Your task to perform on an android device: allow notifications from all sites in the chrome app Image 0: 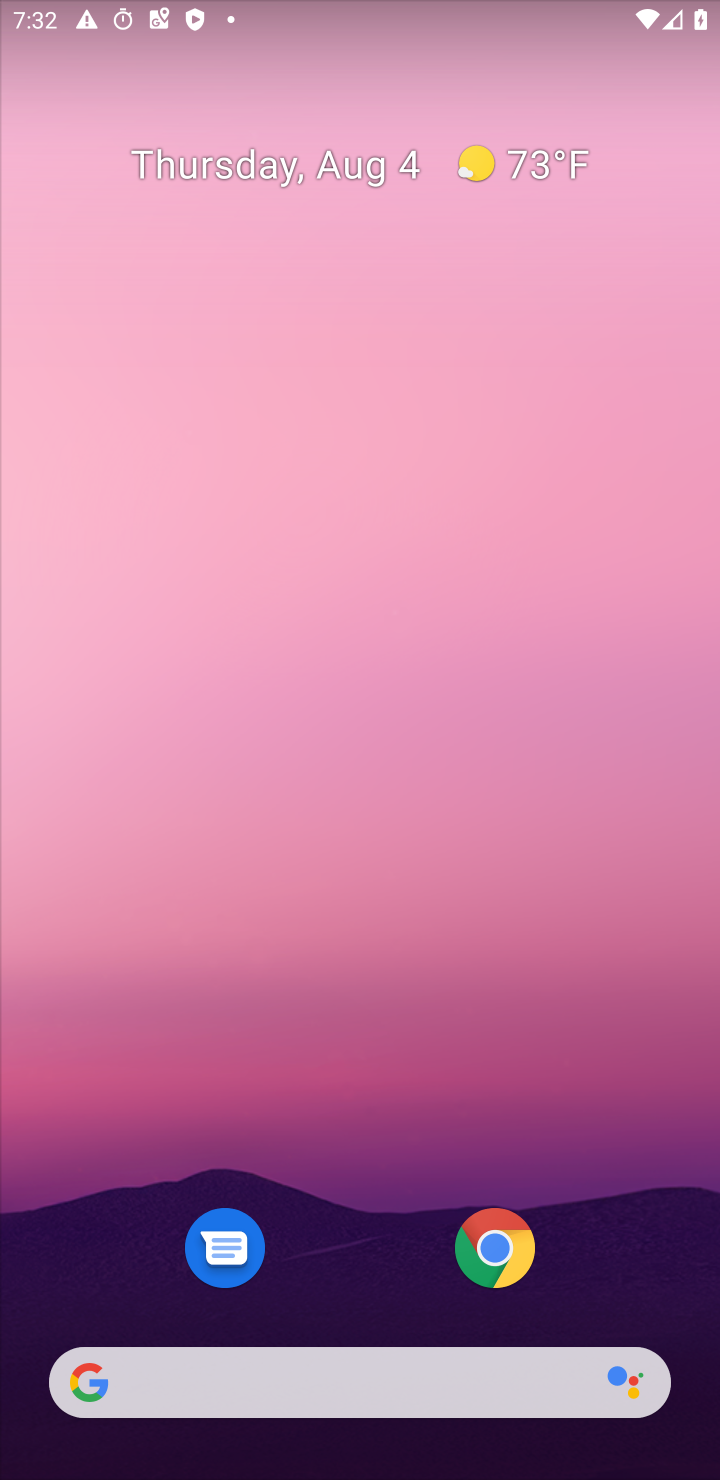
Step 0: press home button
Your task to perform on an android device: allow notifications from all sites in the chrome app Image 1: 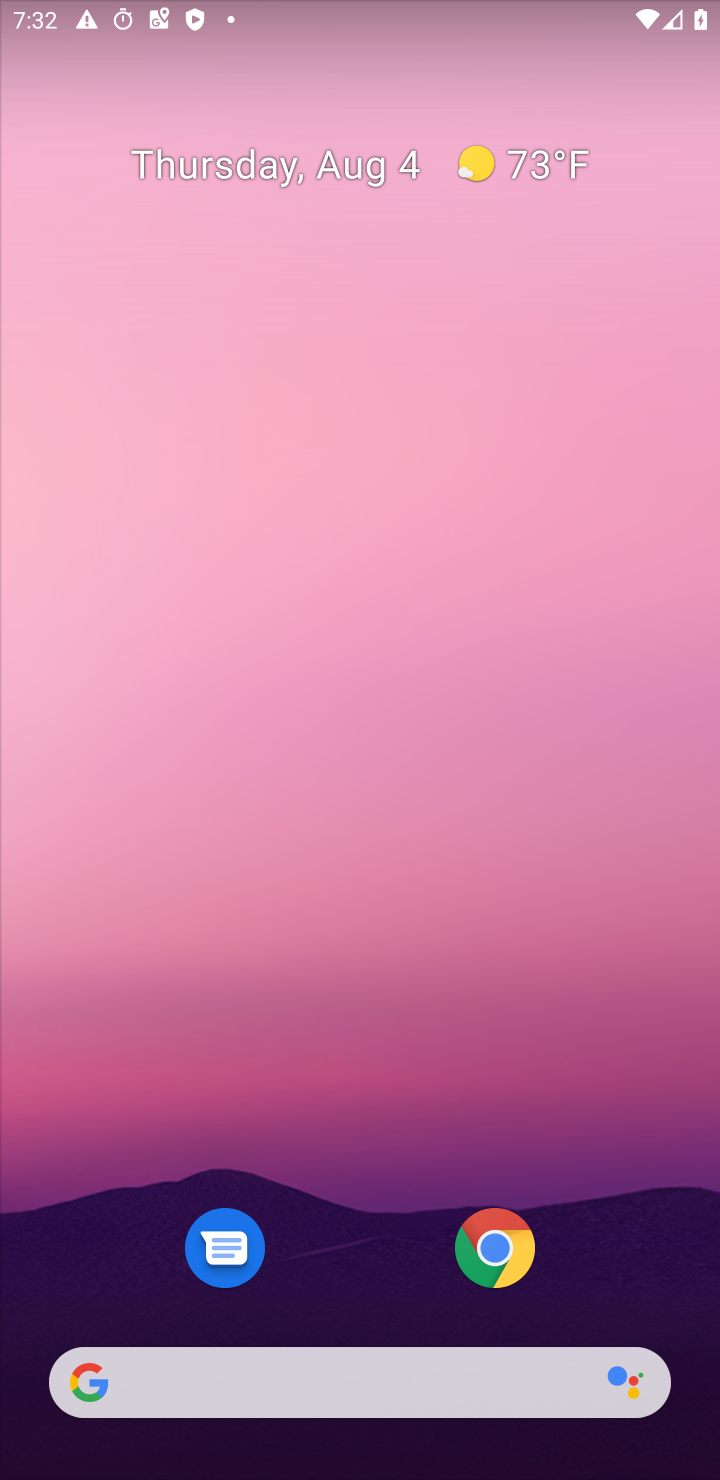
Step 1: click (521, 1249)
Your task to perform on an android device: allow notifications from all sites in the chrome app Image 2: 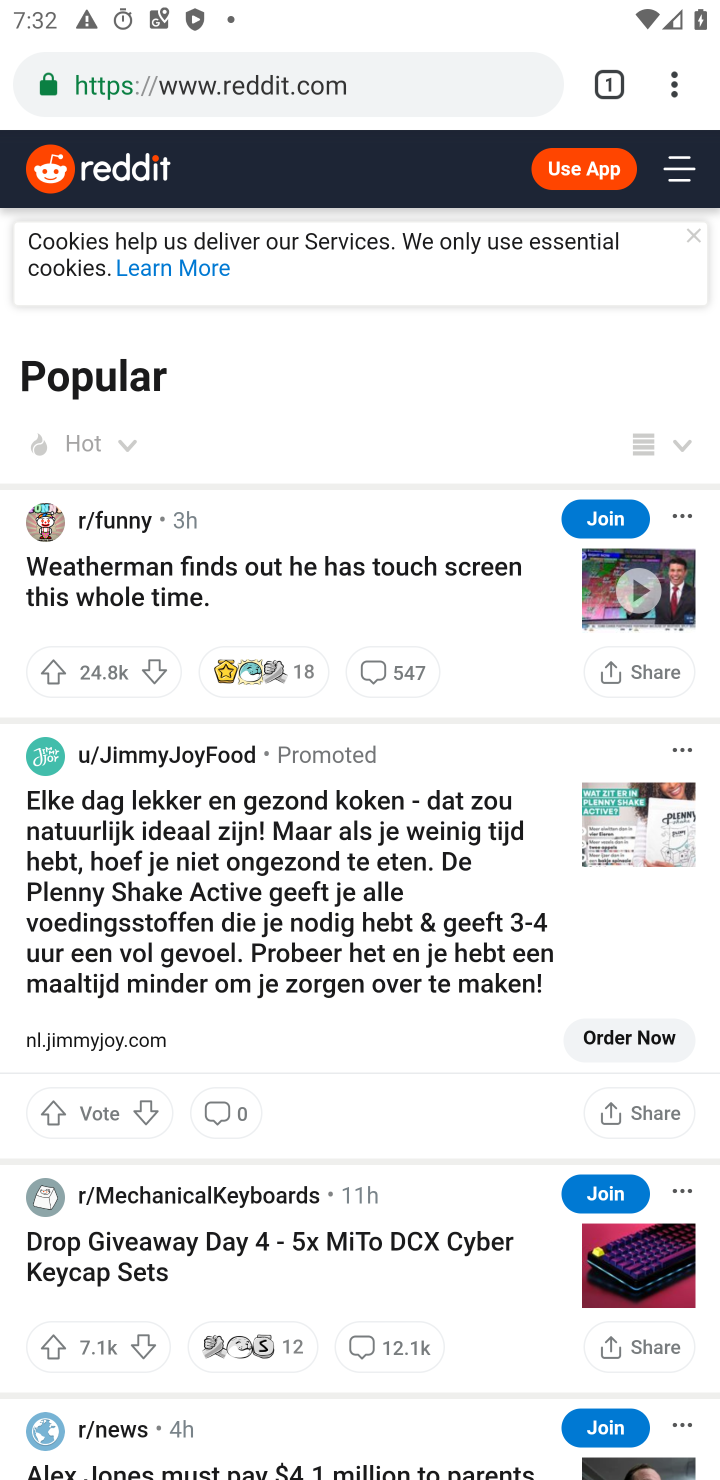
Step 2: click (676, 99)
Your task to perform on an android device: allow notifications from all sites in the chrome app Image 3: 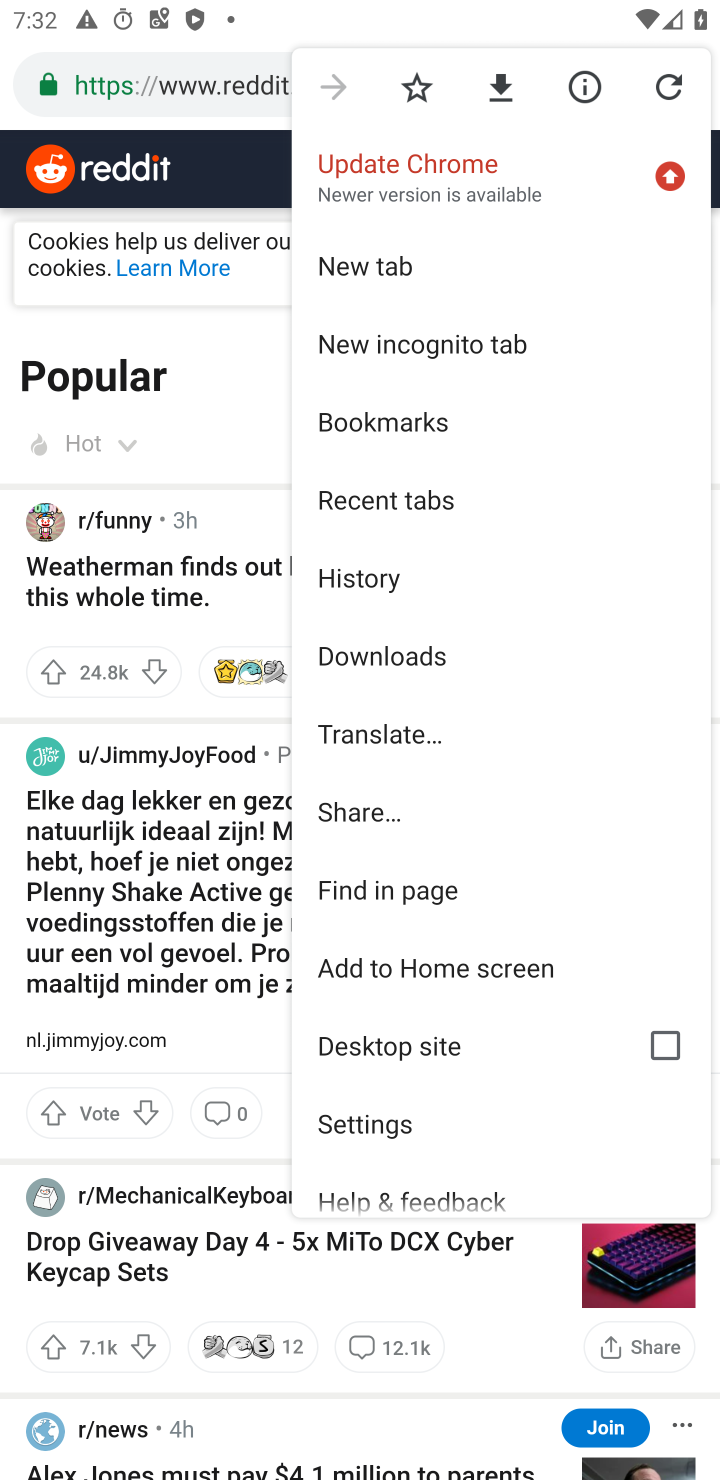
Step 3: click (356, 1119)
Your task to perform on an android device: allow notifications from all sites in the chrome app Image 4: 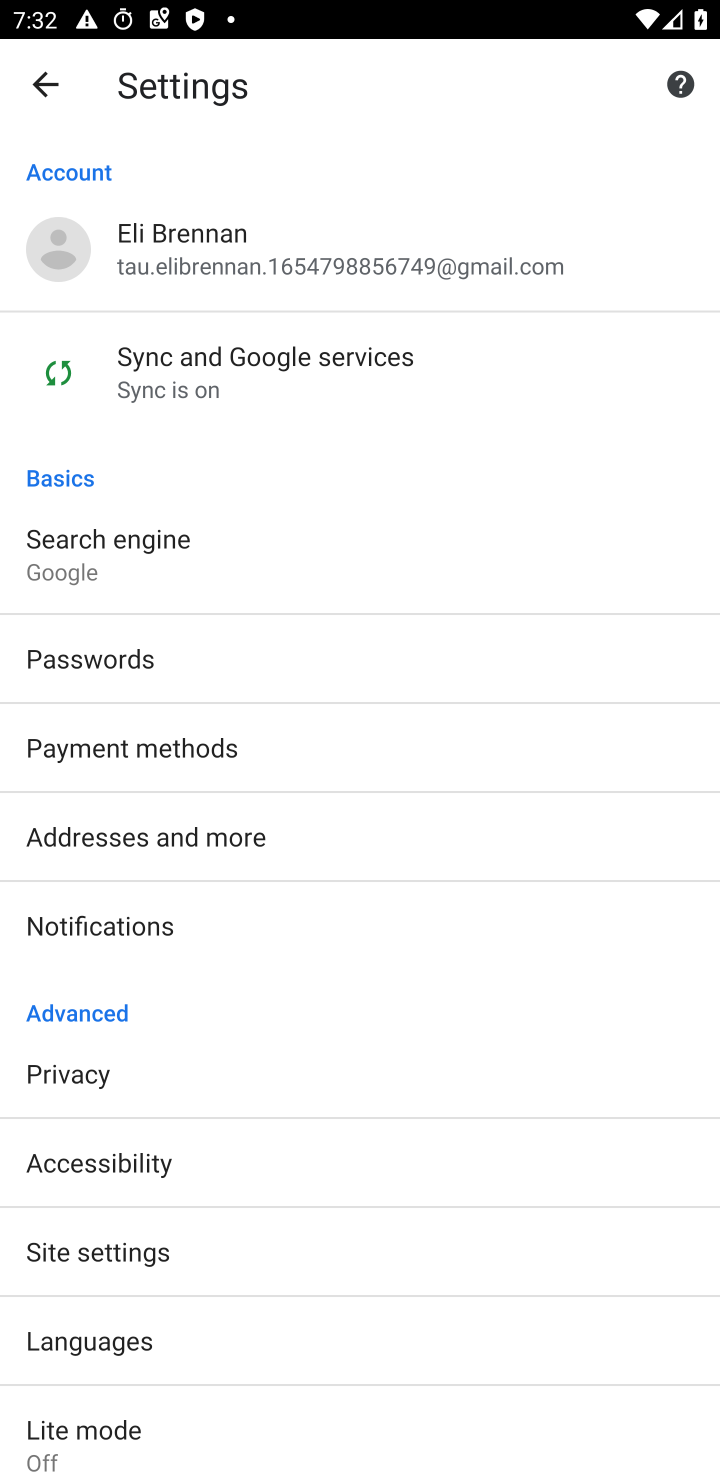
Step 4: click (104, 1247)
Your task to perform on an android device: allow notifications from all sites in the chrome app Image 5: 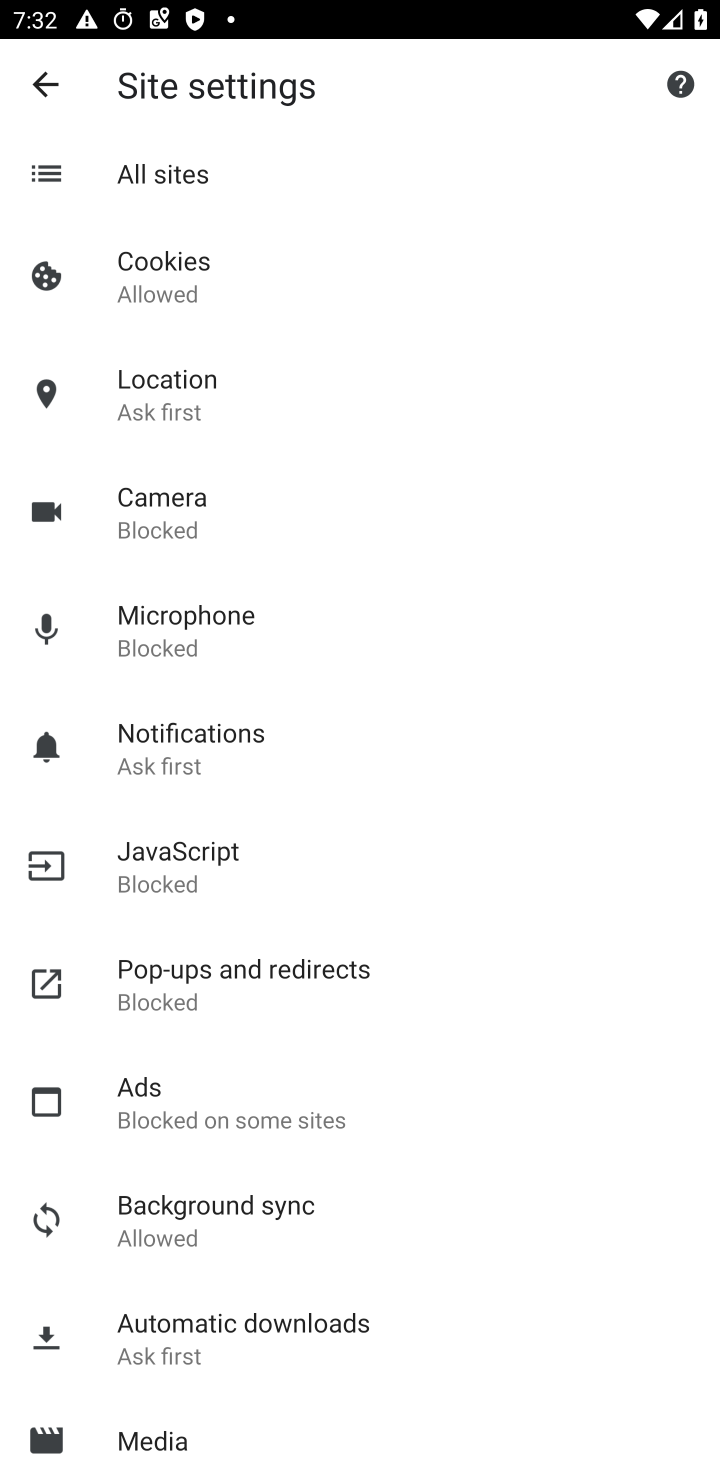
Step 5: click (262, 737)
Your task to perform on an android device: allow notifications from all sites in the chrome app Image 6: 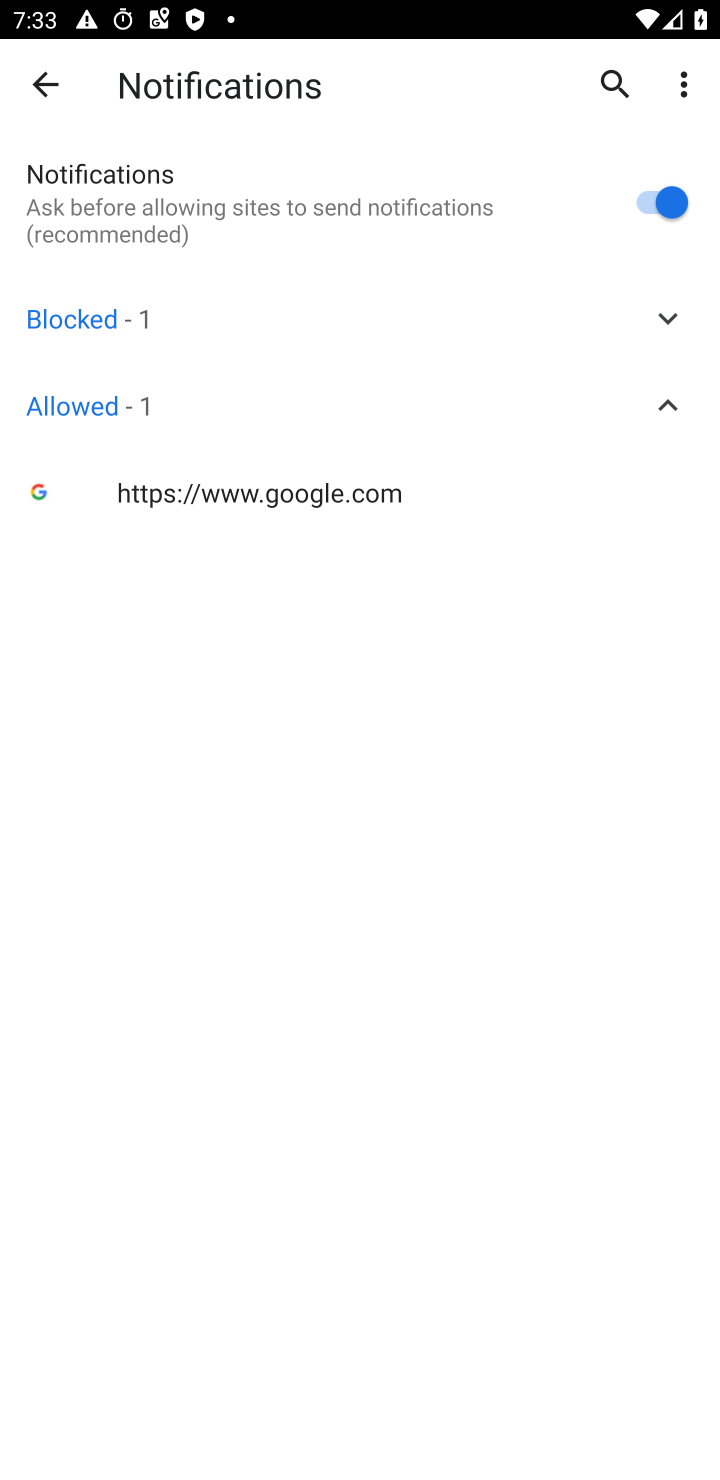
Step 6: task complete